Your task to perform on an android device: Go to settings Image 0: 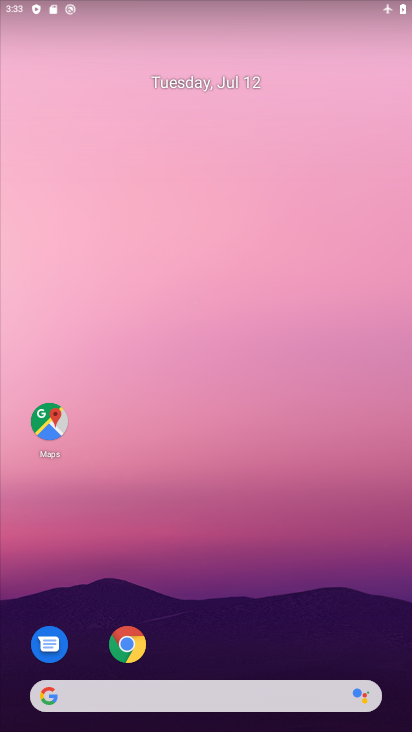
Step 0: drag from (287, 483) to (261, 66)
Your task to perform on an android device: Go to settings Image 1: 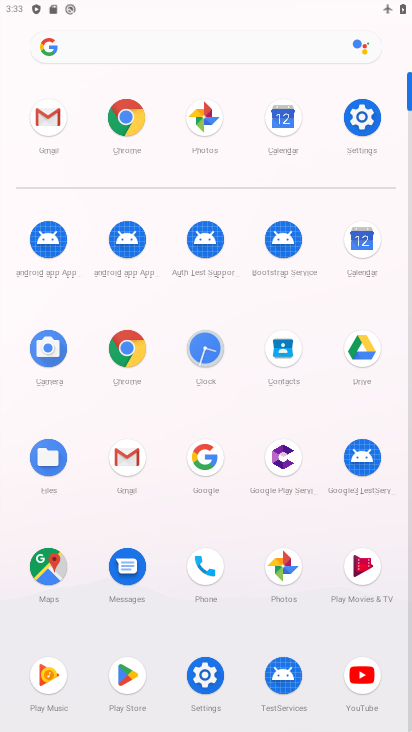
Step 1: click (371, 117)
Your task to perform on an android device: Go to settings Image 2: 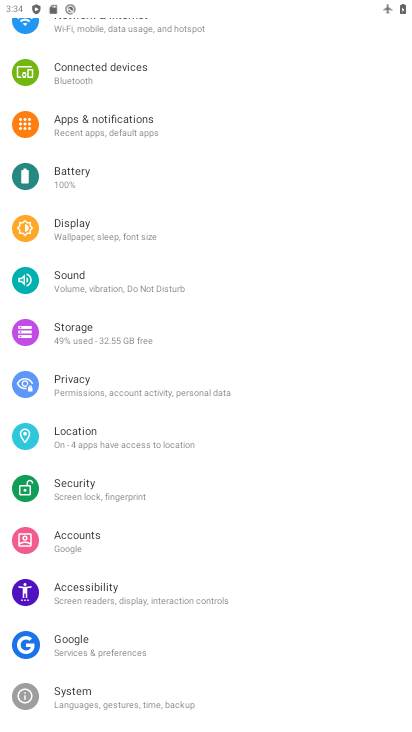
Step 2: task complete